Your task to perform on an android device: all mails in gmail Image 0: 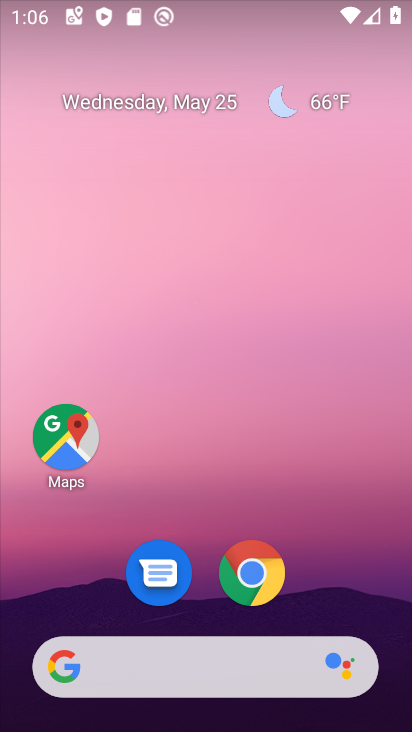
Step 0: drag from (373, 622) to (312, 202)
Your task to perform on an android device: all mails in gmail Image 1: 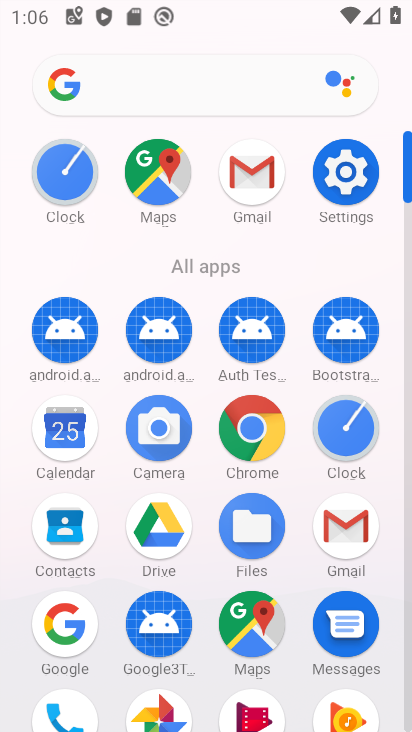
Step 1: click (408, 696)
Your task to perform on an android device: all mails in gmail Image 2: 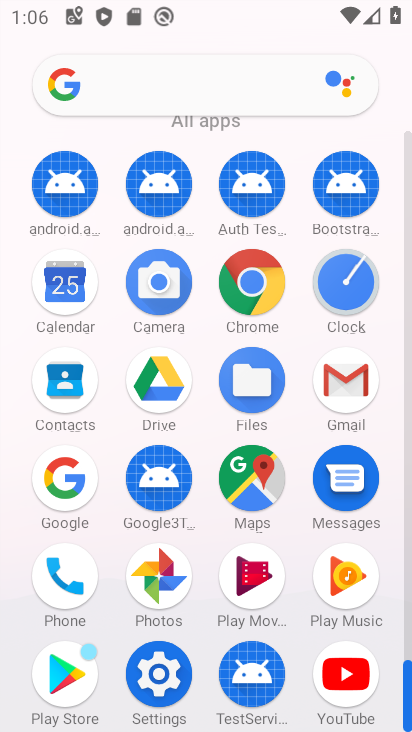
Step 2: click (342, 377)
Your task to perform on an android device: all mails in gmail Image 3: 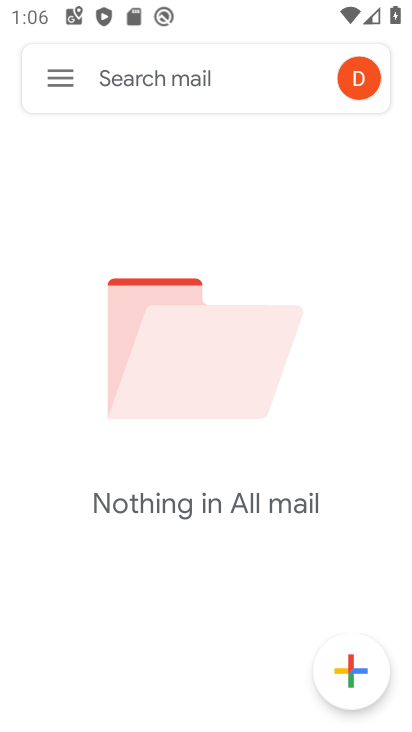
Step 3: task complete